Your task to perform on an android device: Open display settings Image 0: 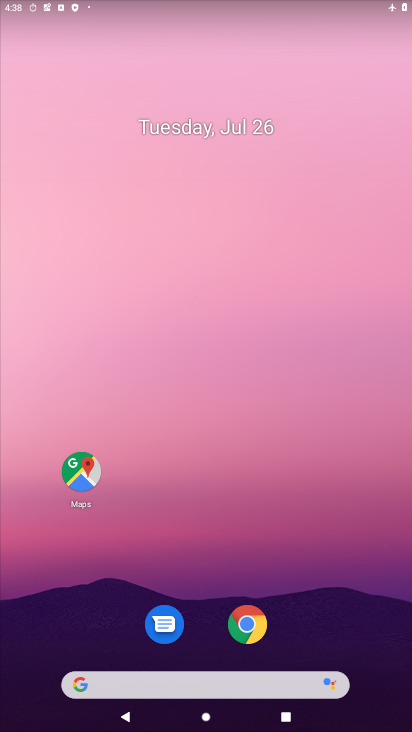
Step 0: drag from (268, 667) to (307, 5)
Your task to perform on an android device: Open display settings Image 1: 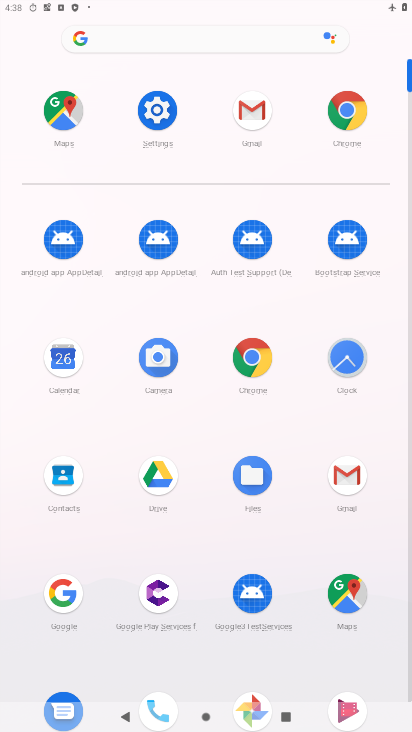
Step 1: click (167, 102)
Your task to perform on an android device: Open display settings Image 2: 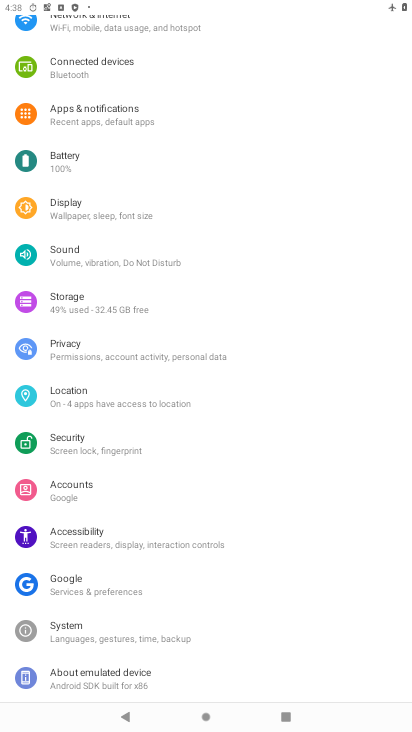
Step 2: click (103, 213)
Your task to perform on an android device: Open display settings Image 3: 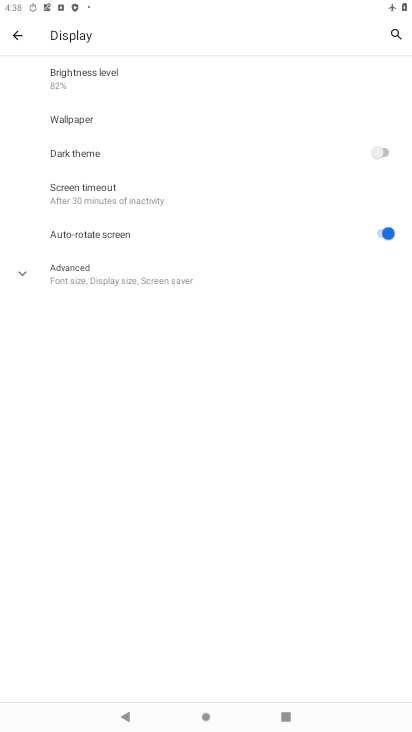
Step 3: task complete